Your task to perform on an android device: open sync settings in chrome Image 0: 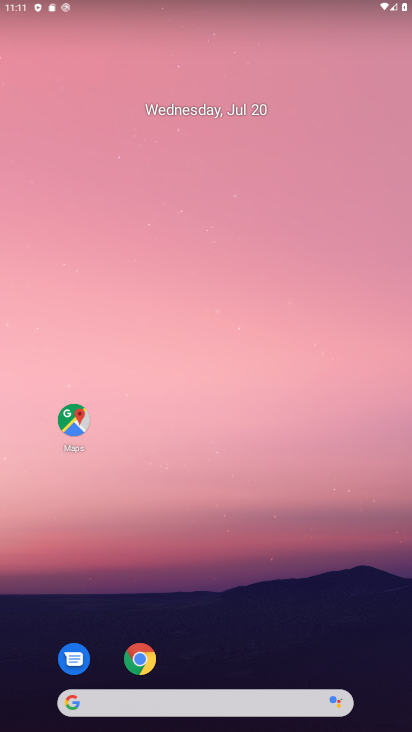
Step 0: click (145, 666)
Your task to perform on an android device: open sync settings in chrome Image 1: 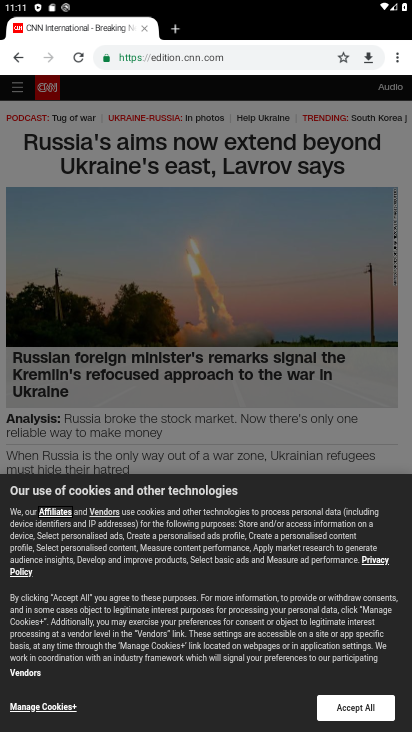
Step 1: click (399, 51)
Your task to perform on an android device: open sync settings in chrome Image 2: 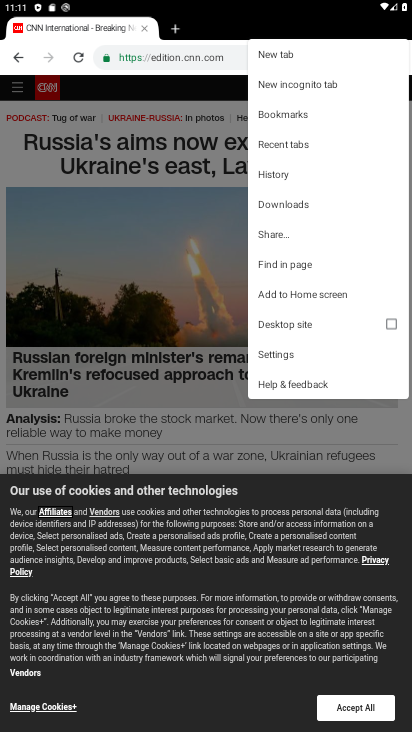
Step 2: click (280, 347)
Your task to perform on an android device: open sync settings in chrome Image 3: 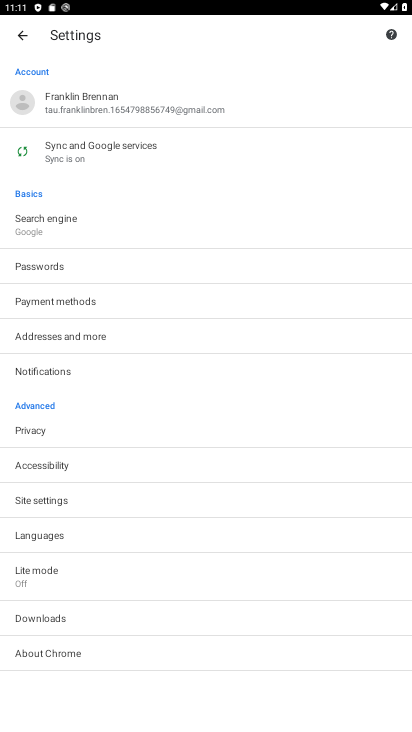
Step 3: click (102, 152)
Your task to perform on an android device: open sync settings in chrome Image 4: 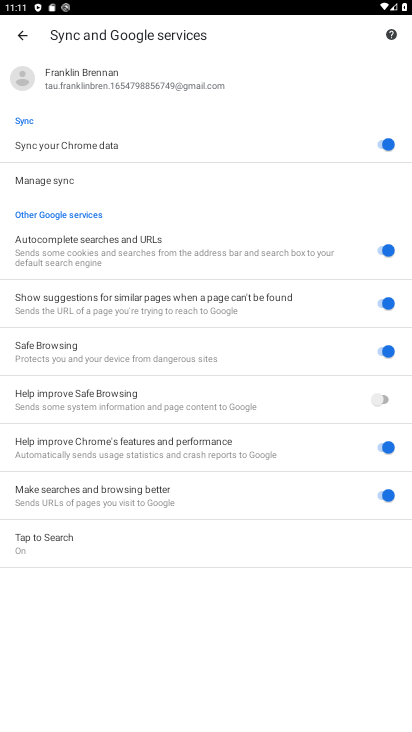
Step 4: task complete